Your task to perform on an android device: Open the stopwatch Image 0: 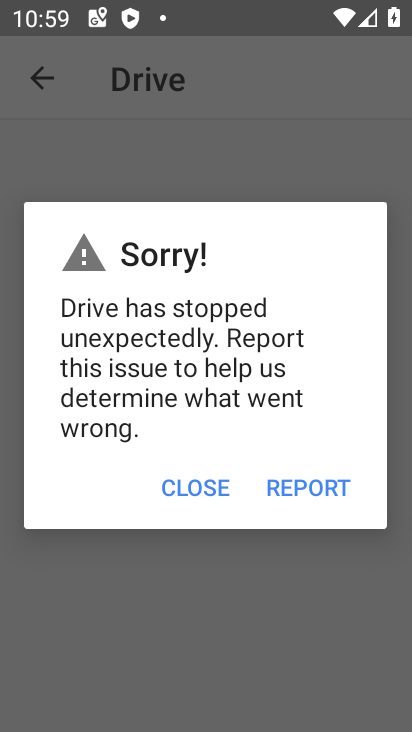
Step 0: press home button
Your task to perform on an android device: Open the stopwatch Image 1: 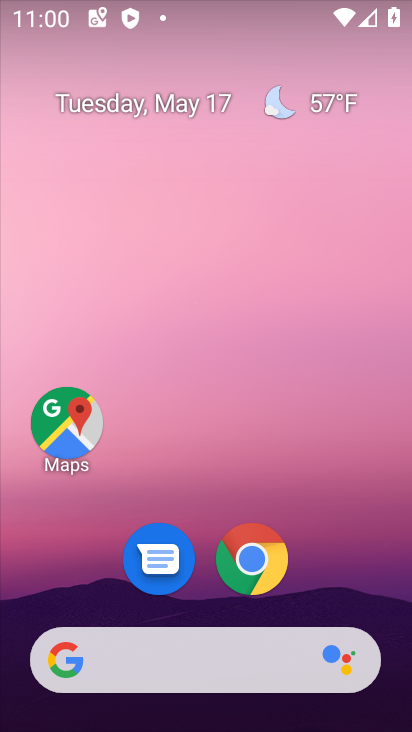
Step 1: click (349, 325)
Your task to perform on an android device: Open the stopwatch Image 2: 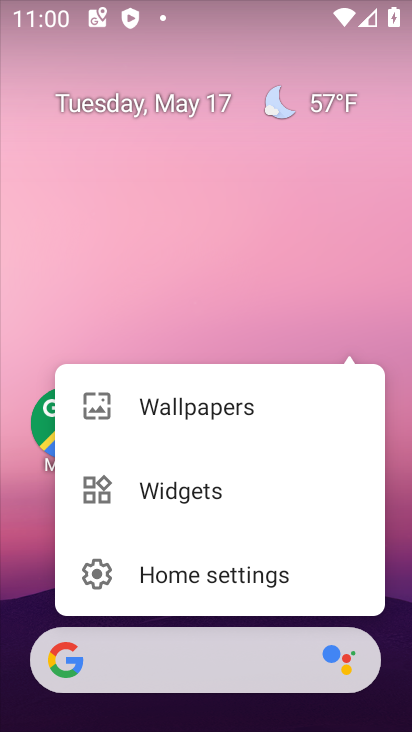
Step 2: drag from (403, 645) to (355, 70)
Your task to perform on an android device: Open the stopwatch Image 3: 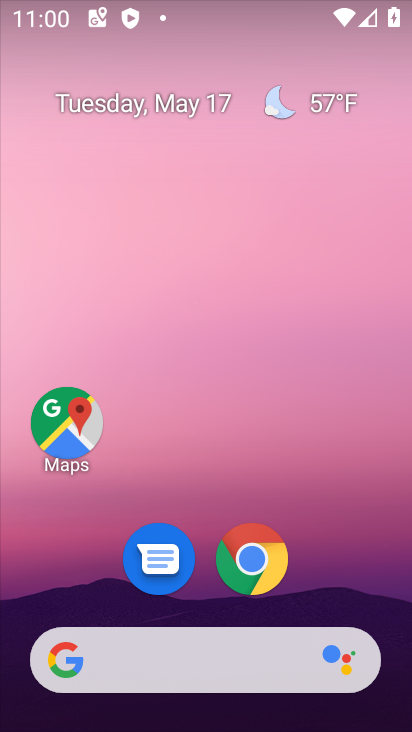
Step 3: drag from (364, 580) to (331, 8)
Your task to perform on an android device: Open the stopwatch Image 4: 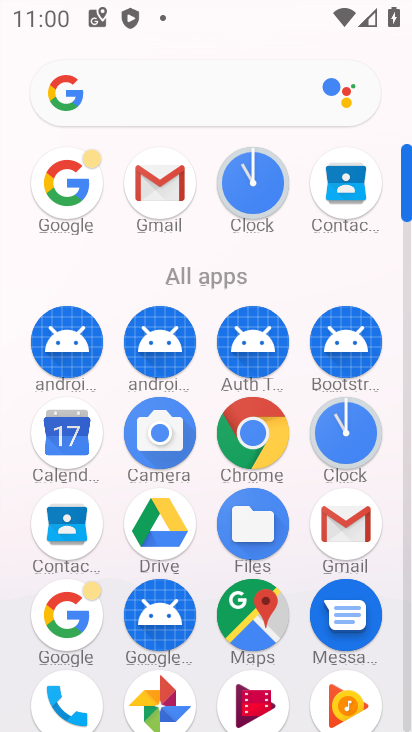
Step 4: click (261, 187)
Your task to perform on an android device: Open the stopwatch Image 5: 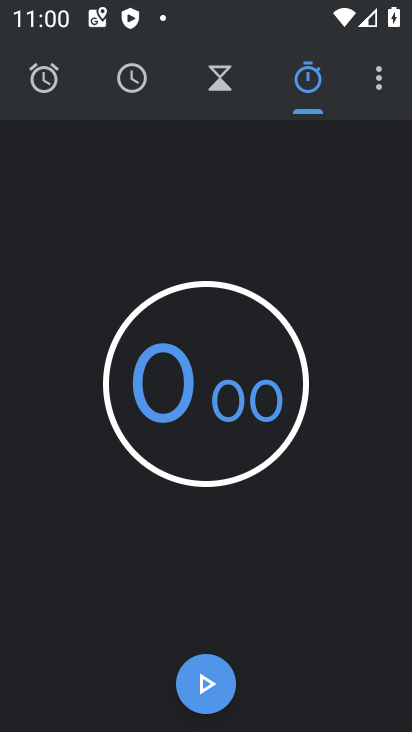
Step 5: task complete